Your task to perform on an android device: Toggle the flashlight Image 0: 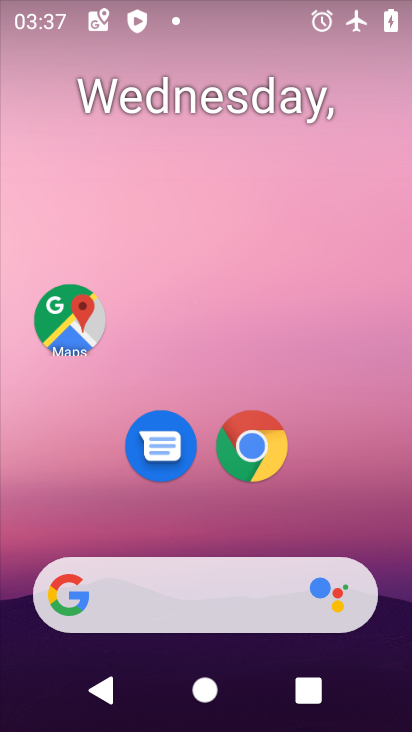
Step 0: drag from (198, 522) to (243, 205)
Your task to perform on an android device: Toggle the flashlight Image 1: 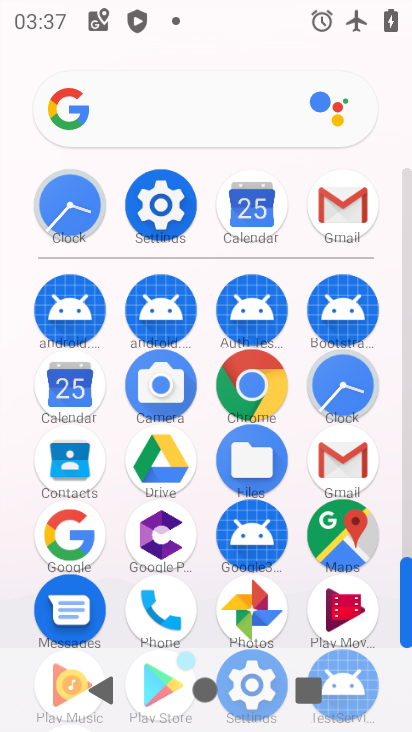
Step 1: click (140, 208)
Your task to perform on an android device: Toggle the flashlight Image 2: 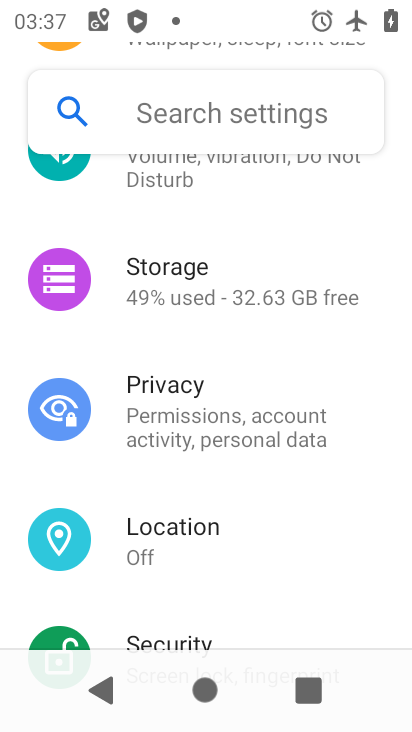
Step 2: task complete